Your task to perform on an android device: Empty the shopping cart on ebay.com. Add "macbook" to the cart on ebay.com Image 0: 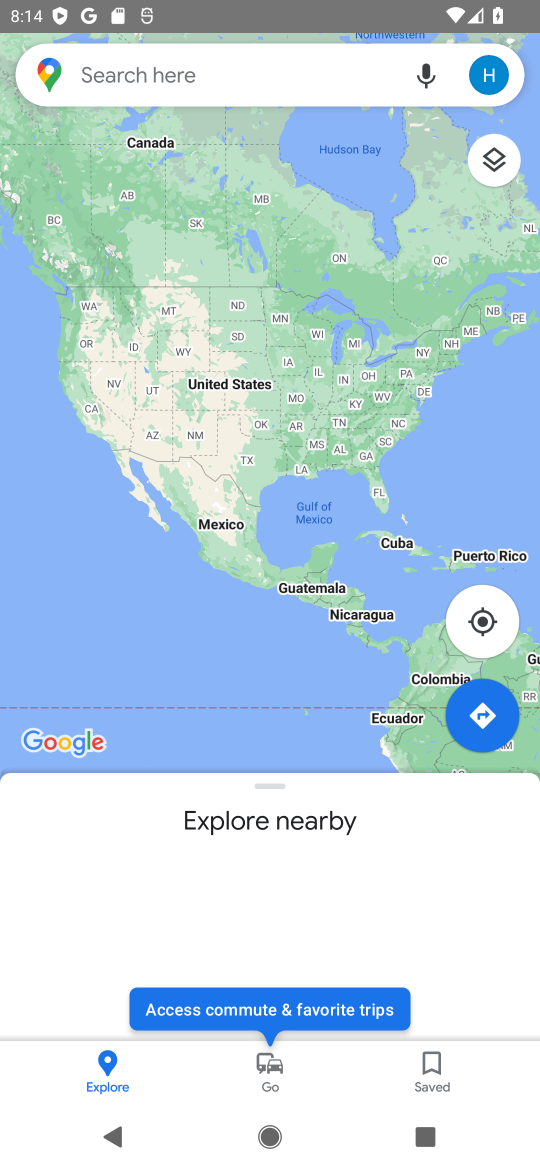
Step 0: press home button
Your task to perform on an android device: Empty the shopping cart on ebay.com. Add "macbook" to the cart on ebay.com Image 1: 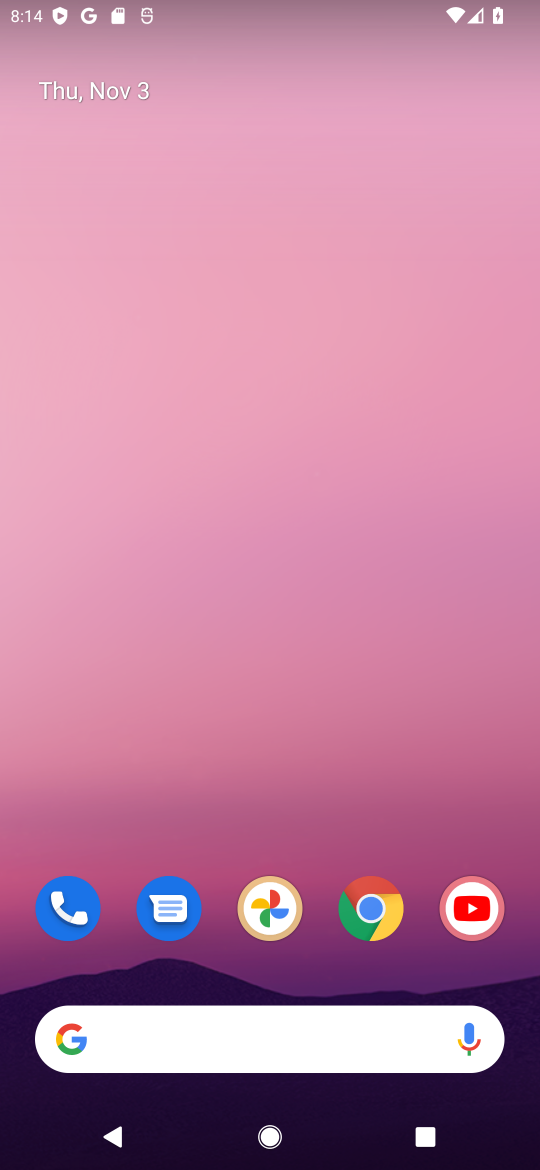
Step 1: click (378, 897)
Your task to perform on an android device: Empty the shopping cart on ebay.com. Add "macbook" to the cart on ebay.com Image 2: 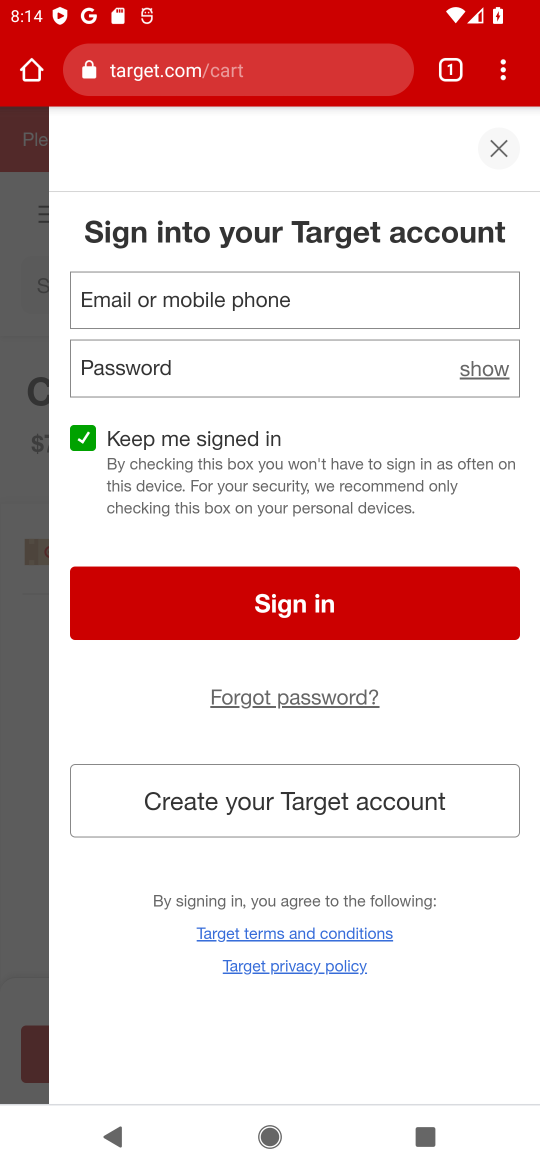
Step 2: click (266, 70)
Your task to perform on an android device: Empty the shopping cart on ebay.com. Add "macbook" to the cart on ebay.com Image 3: 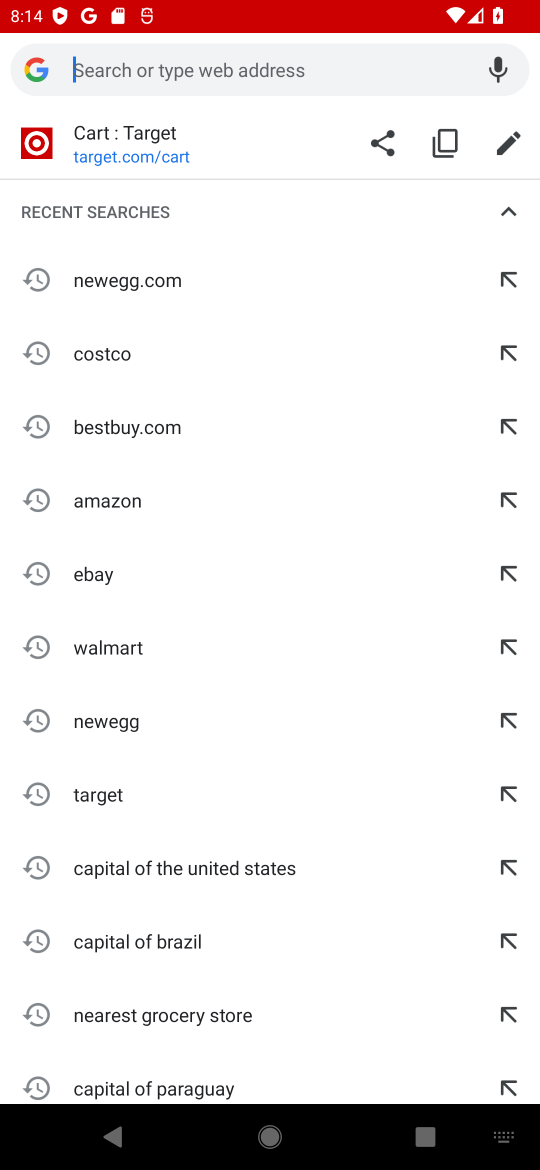
Step 3: click (94, 568)
Your task to perform on an android device: Empty the shopping cart on ebay.com. Add "macbook" to the cart on ebay.com Image 4: 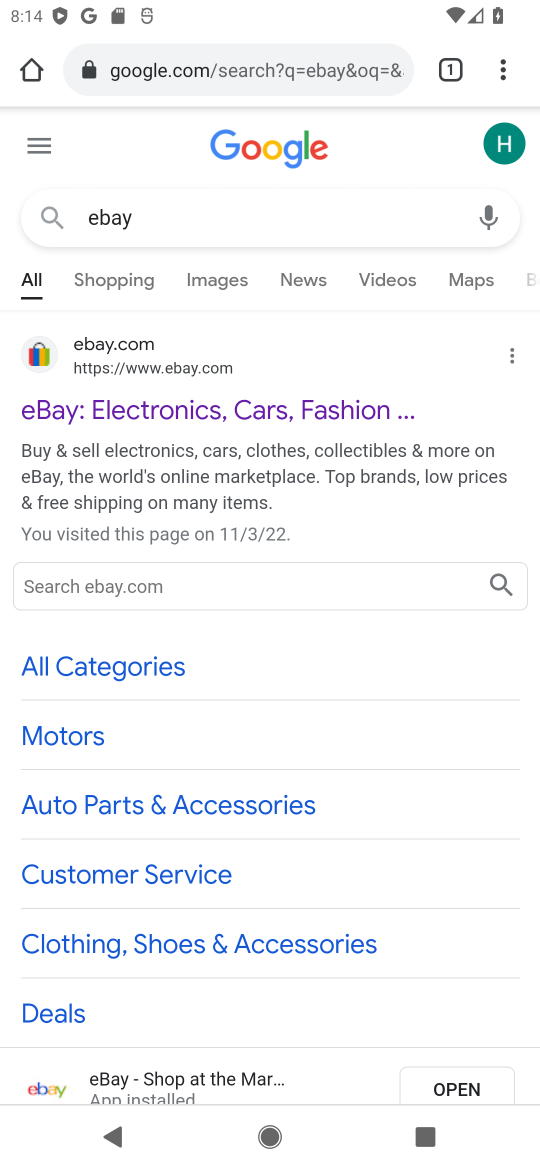
Step 4: click (176, 372)
Your task to perform on an android device: Empty the shopping cart on ebay.com. Add "macbook" to the cart on ebay.com Image 5: 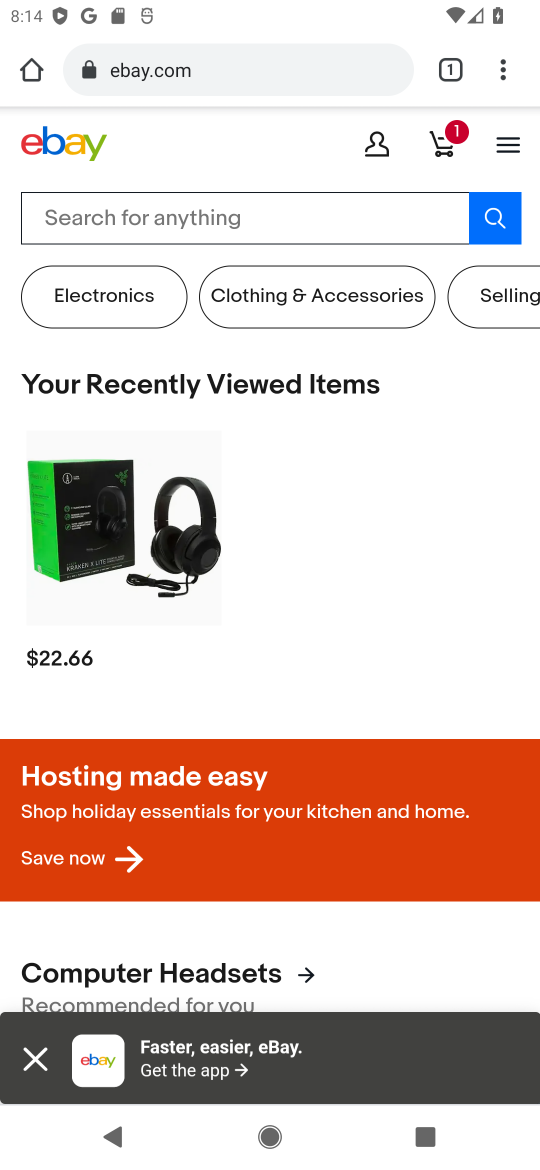
Step 5: click (439, 146)
Your task to perform on an android device: Empty the shopping cart on ebay.com. Add "macbook" to the cart on ebay.com Image 6: 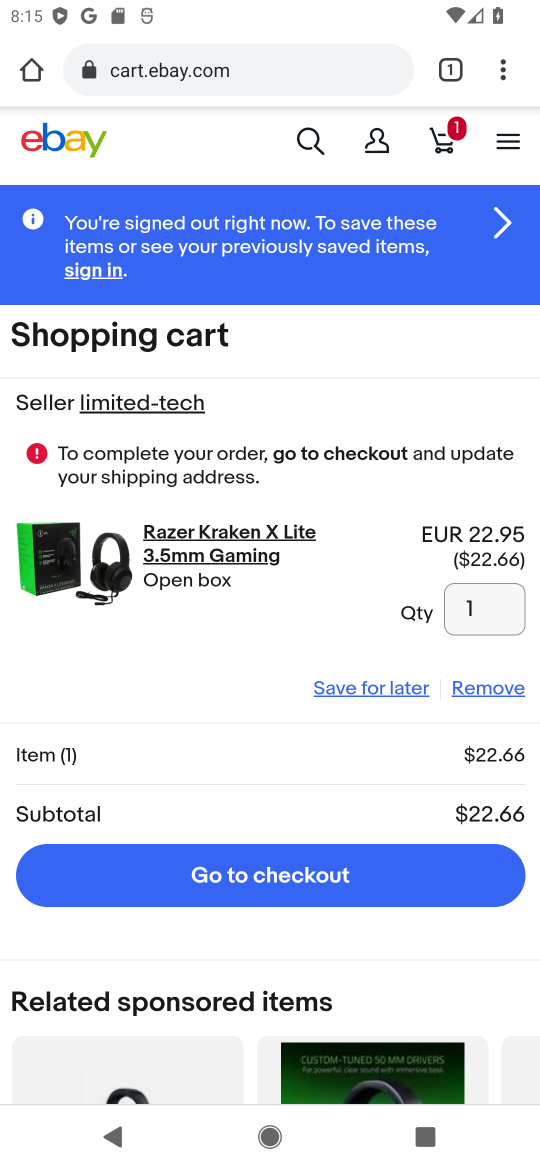
Step 6: click (486, 689)
Your task to perform on an android device: Empty the shopping cart on ebay.com. Add "macbook" to the cart on ebay.com Image 7: 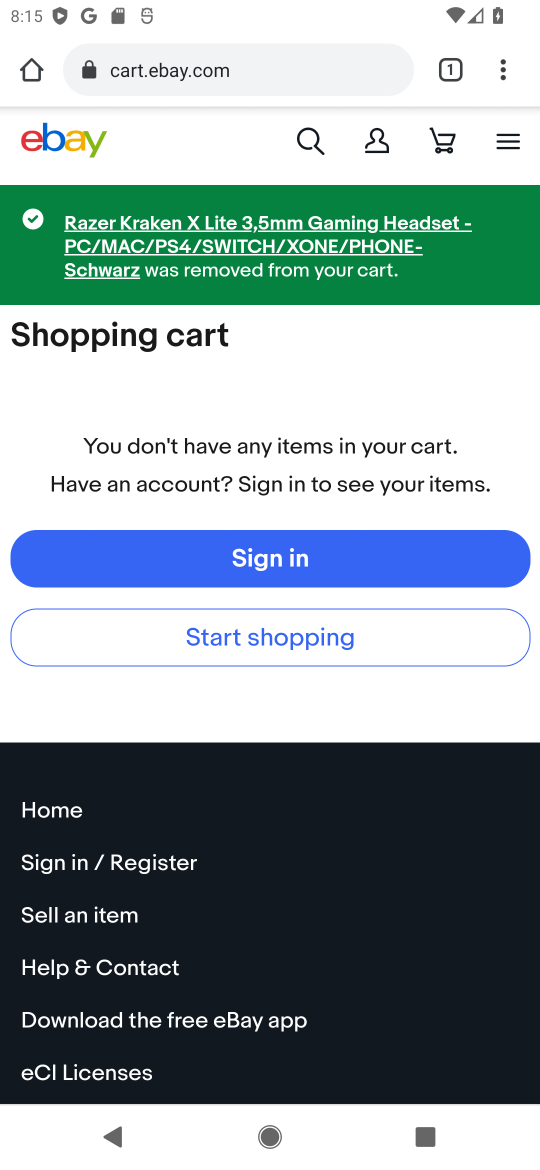
Step 7: click (313, 136)
Your task to perform on an android device: Empty the shopping cart on ebay.com. Add "macbook" to the cart on ebay.com Image 8: 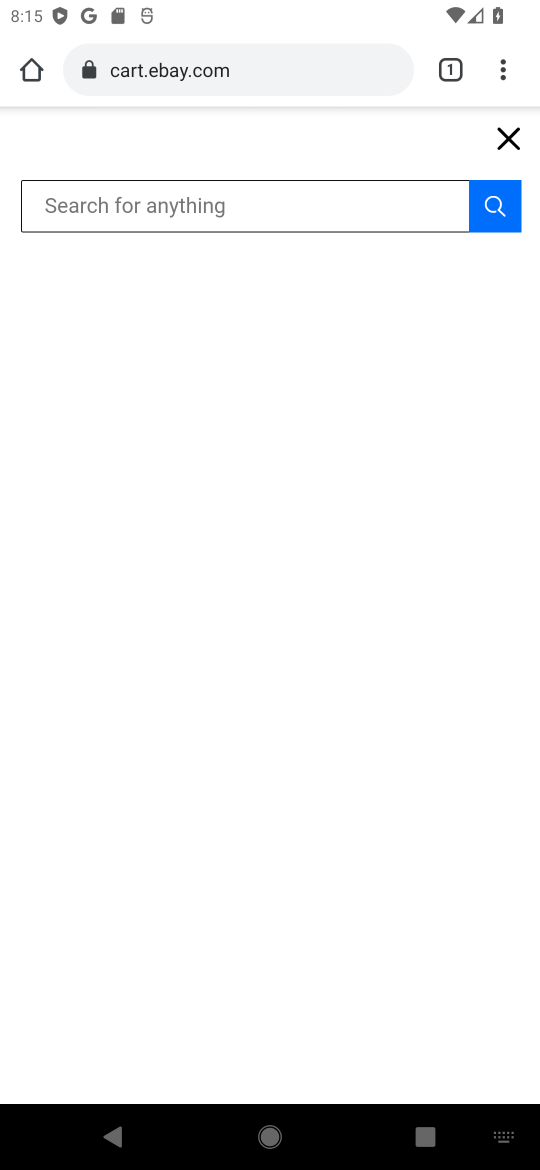
Step 8: type "macbook"
Your task to perform on an android device: Empty the shopping cart on ebay.com. Add "macbook" to the cart on ebay.com Image 9: 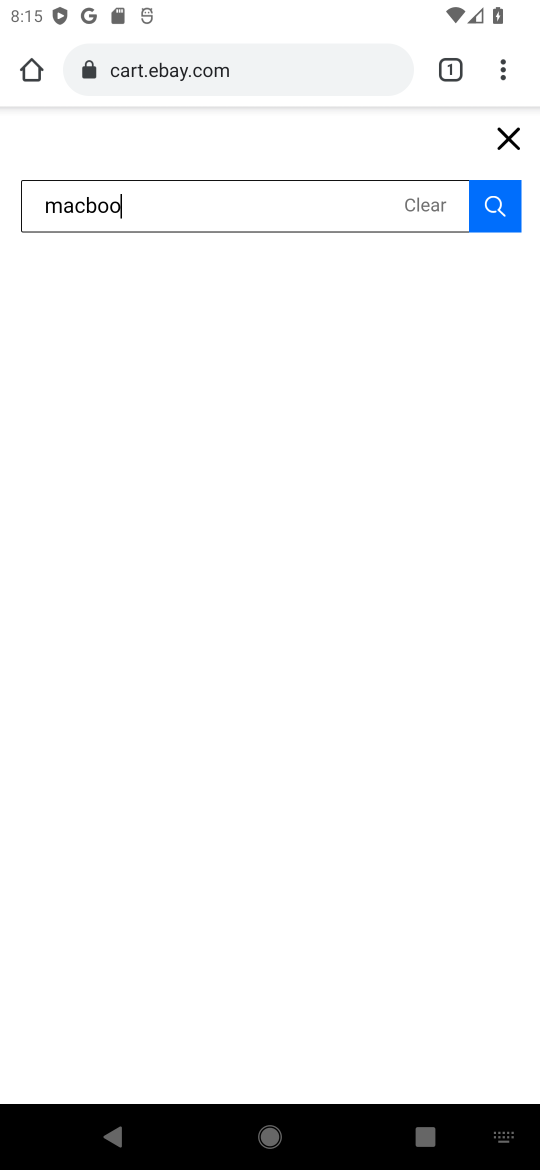
Step 9: press enter
Your task to perform on an android device: Empty the shopping cart on ebay.com. Add "macbook" to the cart on ebay.com Image 10: 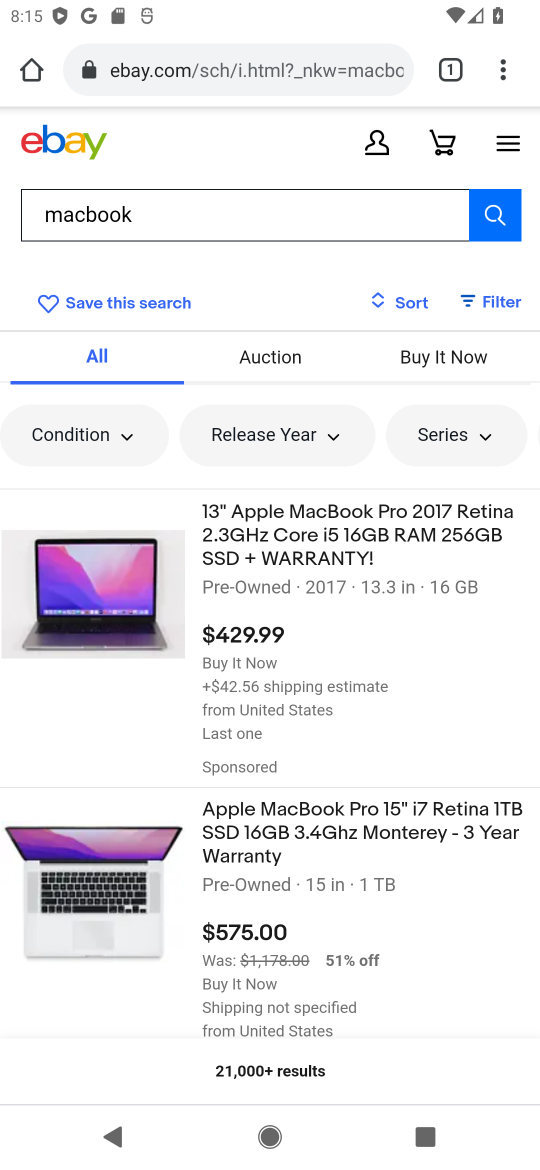
Step 10: click (117, 597)
Your task to perform on an android device: Empty the shopping cart on ebay.com. Add "macbook" to the cart on ebay.com Image 11: 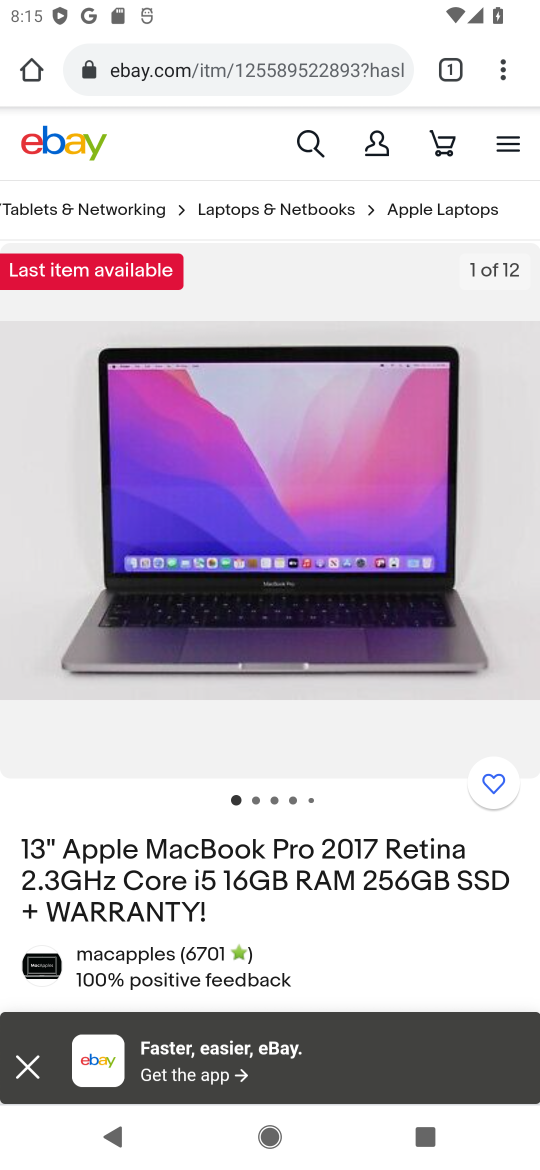
Step 11: drag from (382, 885) to (344, 445)
Your task to perform on an android device: Empty the shopping cart on ebay.com. Add "macbook" to the cart on ebay.com Image 12: 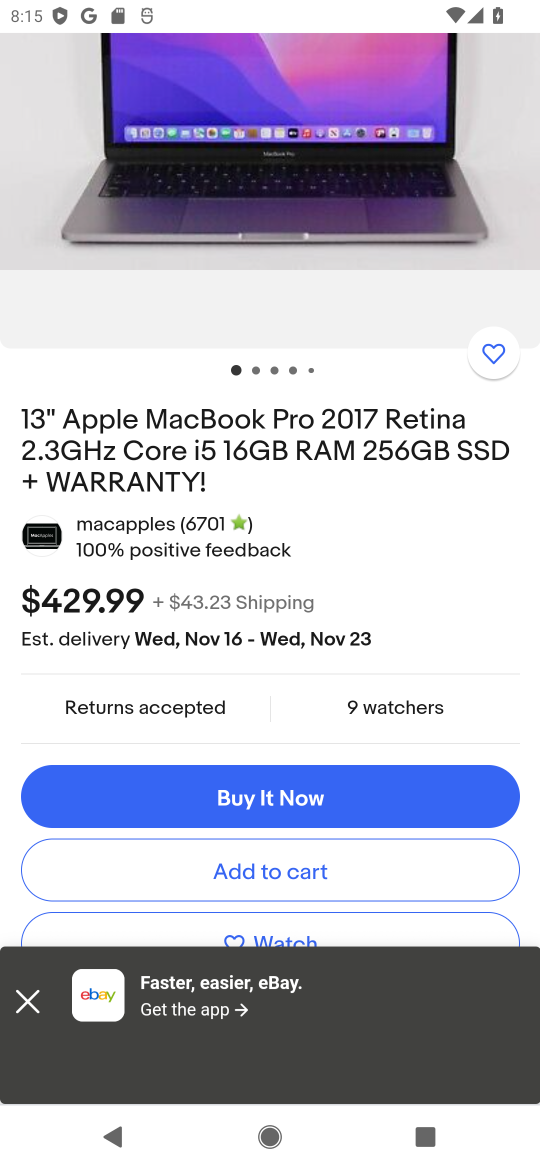
Step 12: click (365, 865)
Your task to perform on an android device: Empty the shopping cart on ebay.com. Add "macbook" to the cart on ebay.com Image 13: 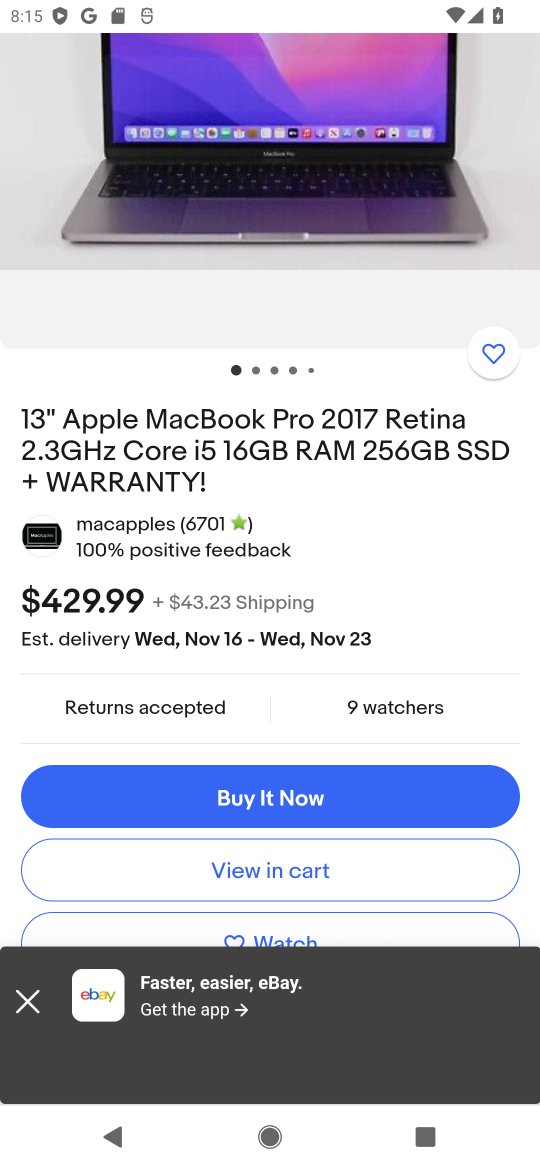
Step 13: task complete